Your task to perform on an android device: turn on location history Image 0: 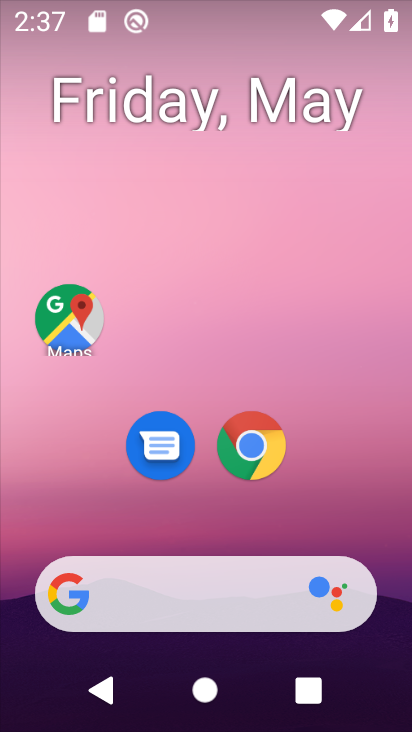
Step 0: drag from (184, 503) to (243, 132)
Your task to perform on an android device: turn on location history Image 1: 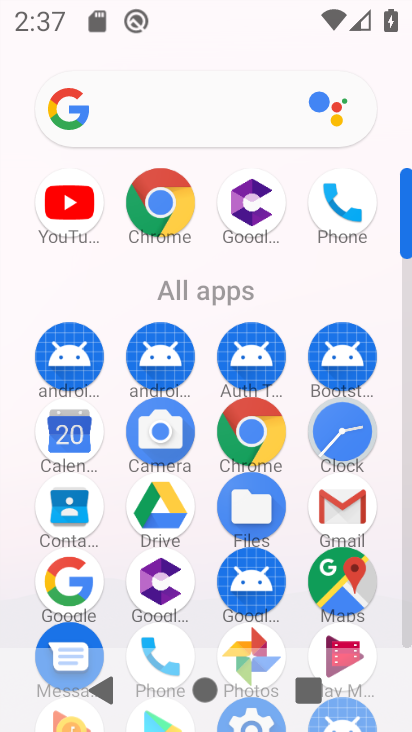
Step 1: drag from (205, 615) to (233, 307)
Your task to perform on an android device: turn on location history Image 2: 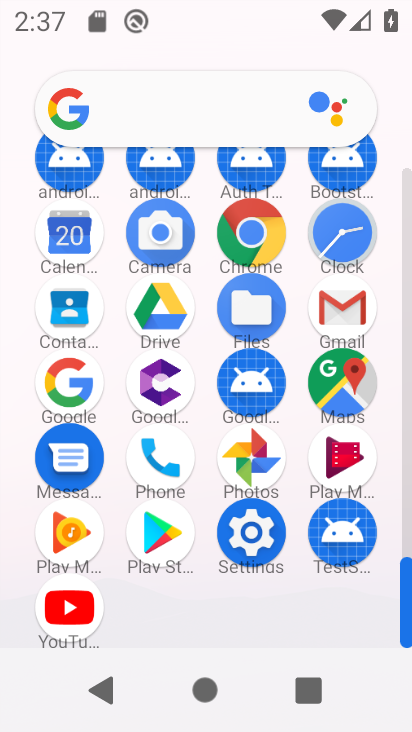
Step 2: click (248, 534)
Your task to perform on an android device: turn on location history Image 3: 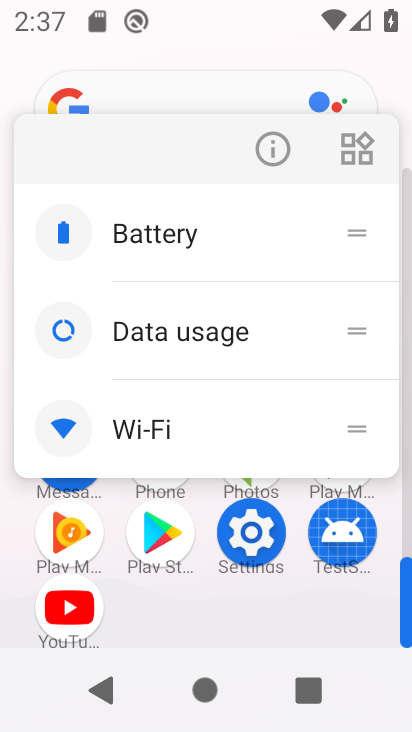
Step 3: click (279, 135)
Your task to perform on an android device: turn on location history Image 4: 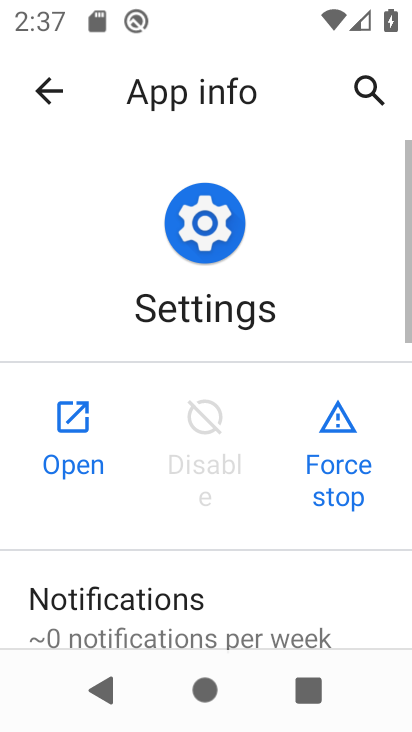
Step 4: click (77, 442)
Your task to perform on an android device: turn on location history Image 5: 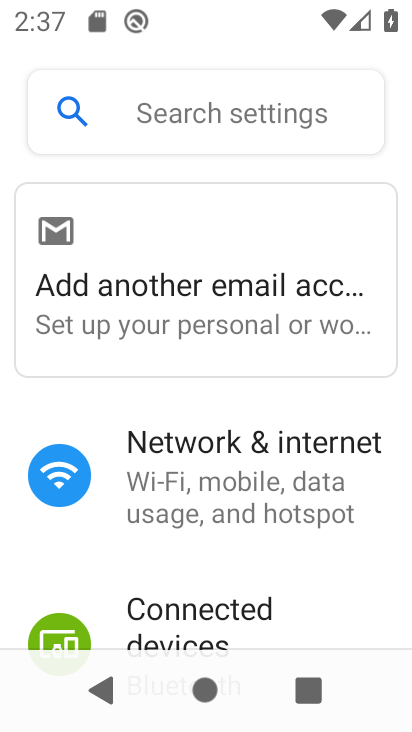
Step 5: drag from (172, 566) to (211, 342)
Your task to perform on an android device: turn on location history Image 6: 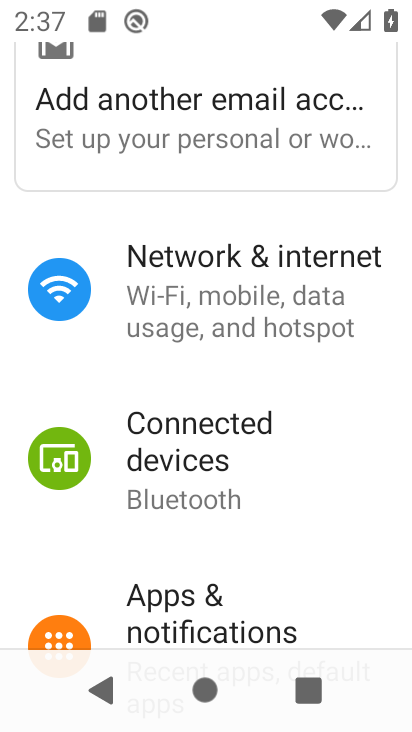
Step 6: drag from (219, 487) to (296, 231)
Your task to perform on an android device: turn on location history Image 7: 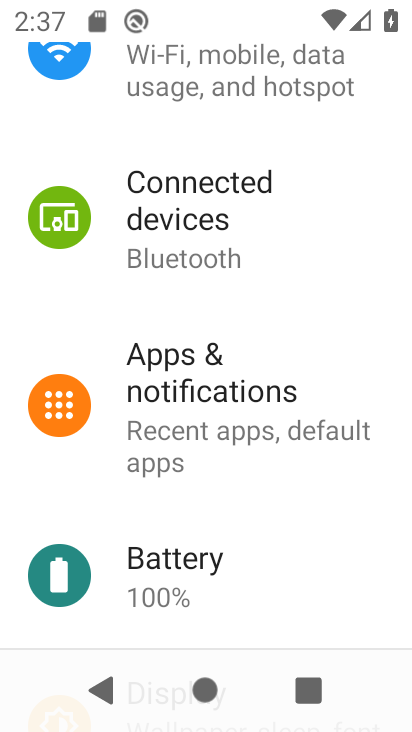
Step 7: drag from (187, 532) to (359, 154)
Your task to perform on an android device: turn on location history Image 8: 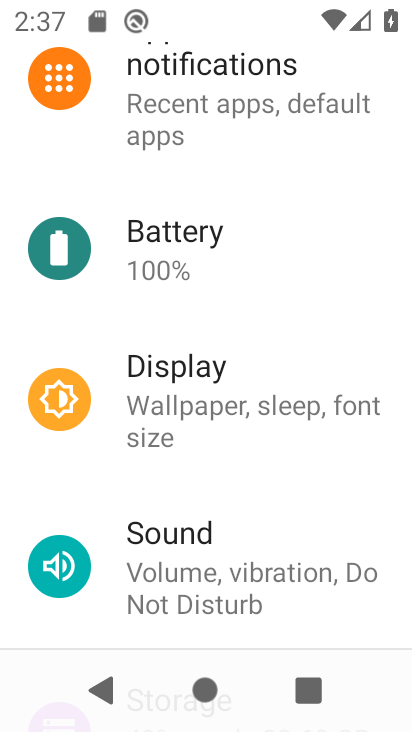
Step 8: drag from (211, 429) to (225, 221)
Your task to perform on an android device: turn on location history Image 9: 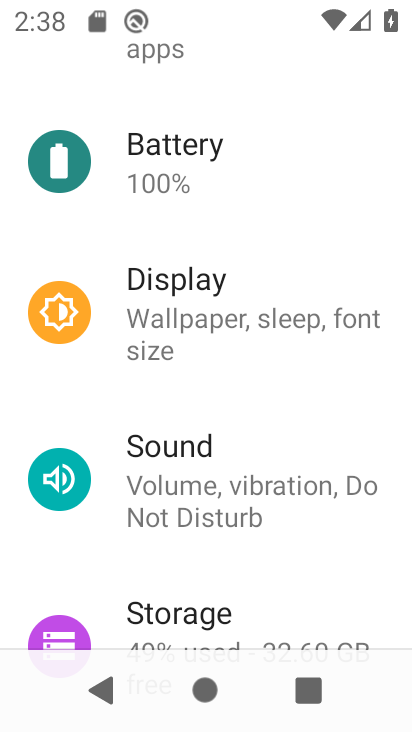
Step 9: drag from (205, 529) to (263, 160)
Your task to perform on an android device: turn on location history Image 10: 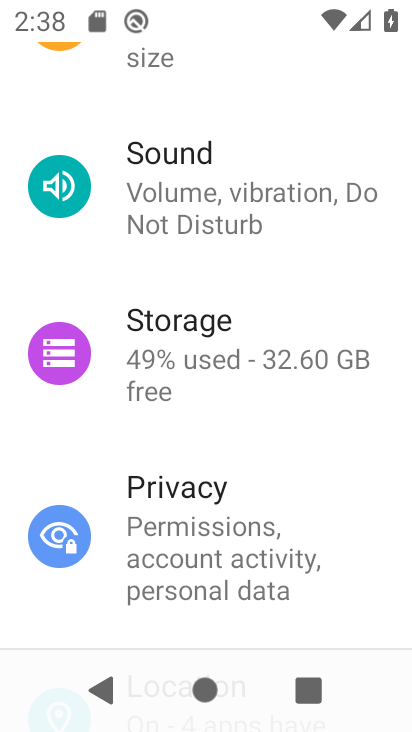
Step 10: drag from (187, 583) to (256, 228)
Your task to perform on an android device: turn on location history Image 11: 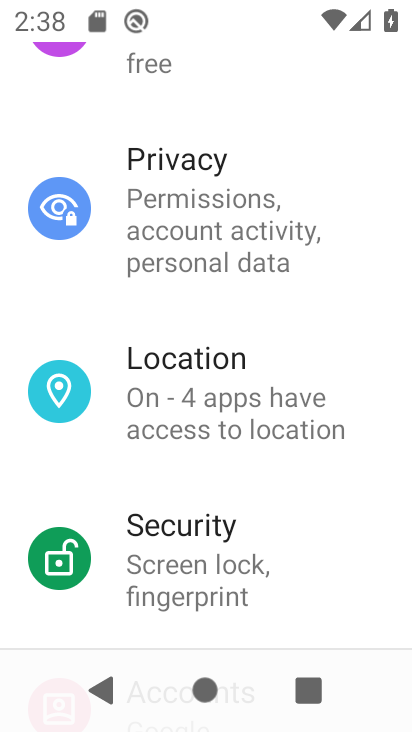
Step 11: click (174, 385)
Your task to perform on an android device: turn on location history Image 12: 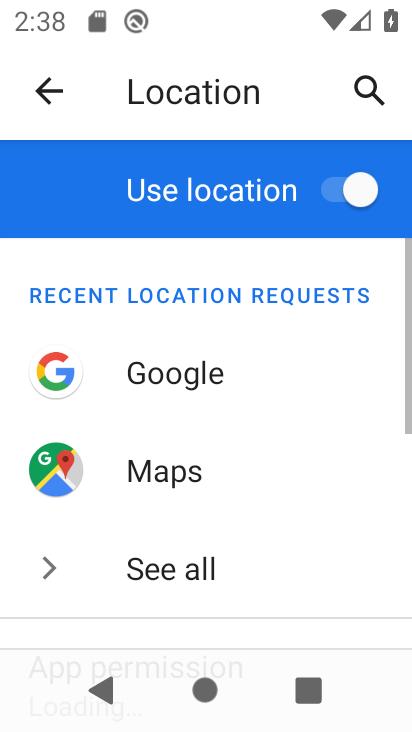
Step 12: click (244, 173)
Your task to perform on an android device: turn on location history Image 13: 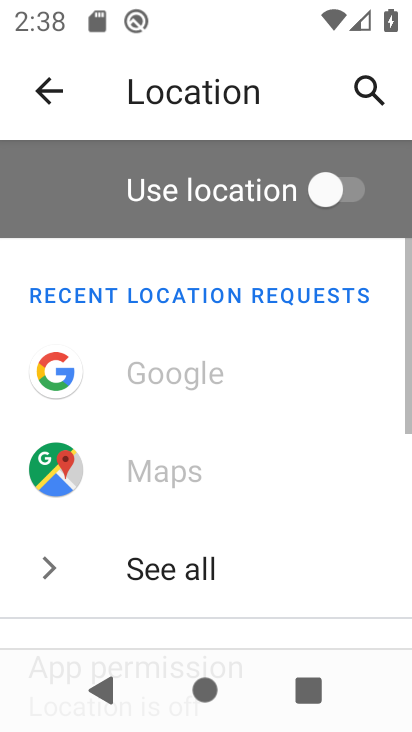
Step 13: drag from (197, 583) to (248, 215)
Your task to perform on an android device: turn on location history Image 14: 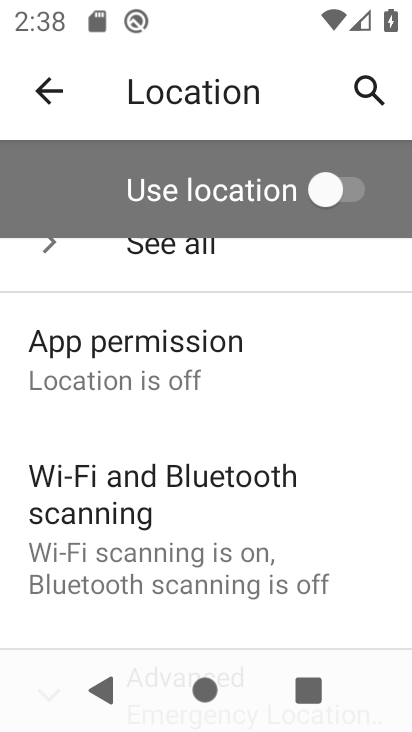
Step 14: drag from (218, 595) to (267, 182)
Your task to perform on an android device: turn on location history Image 15: 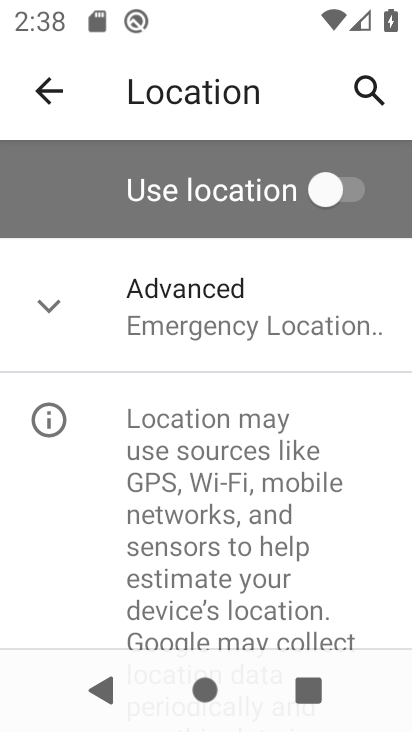
Step 15: click (168, 314)
Your task to perform on an android device: turn on location history Image 16: 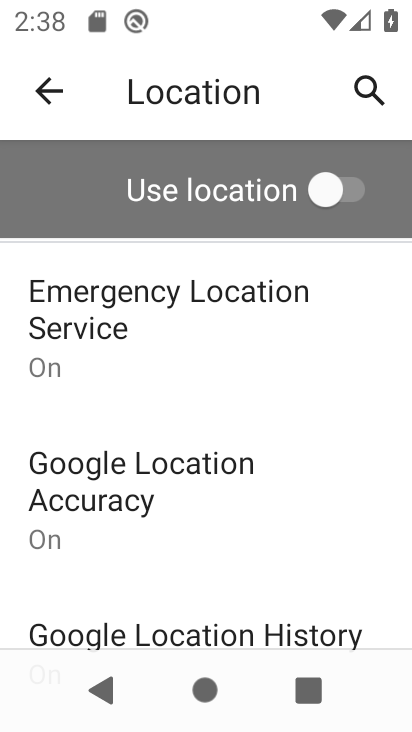
Step 16: drag from (209, 523) to (226, 267)
Your task to perform on an android device: turn on location history Image 17: 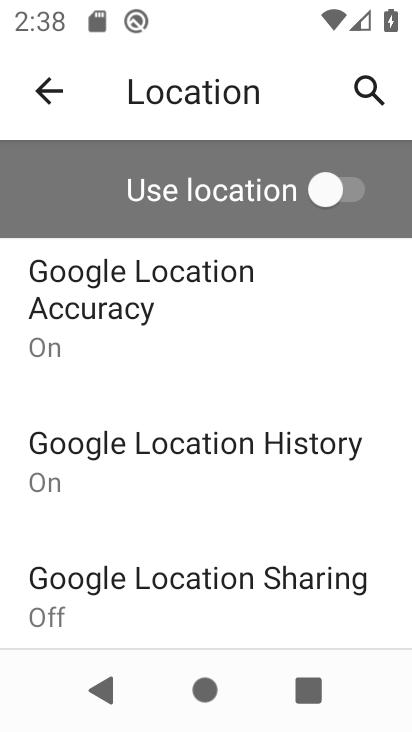
Step 17: click (202, 462)
Your task to perform on an android device: turn on location history Image 18: 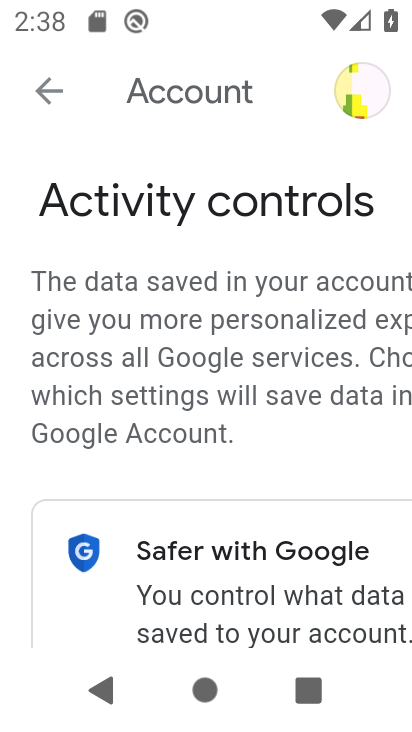
Step 18: drag from (196, 544) to (247, 115)
Your task to perform on an android device: turn on location history Image 19: 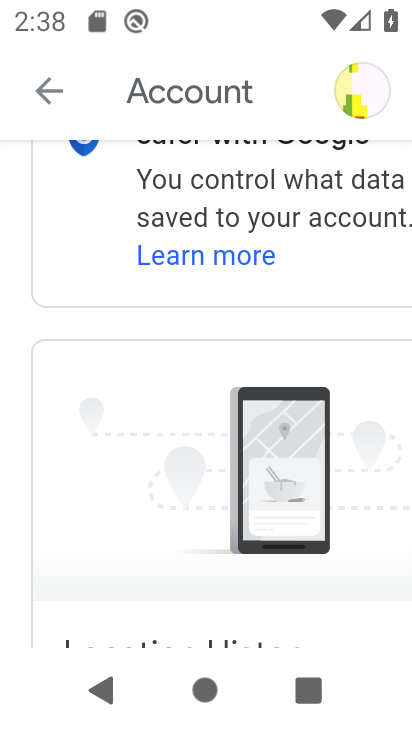
Step 19: drag from (293, 508) to (297, 212)
Your task to perform on an android device: turn on location history Image 20: 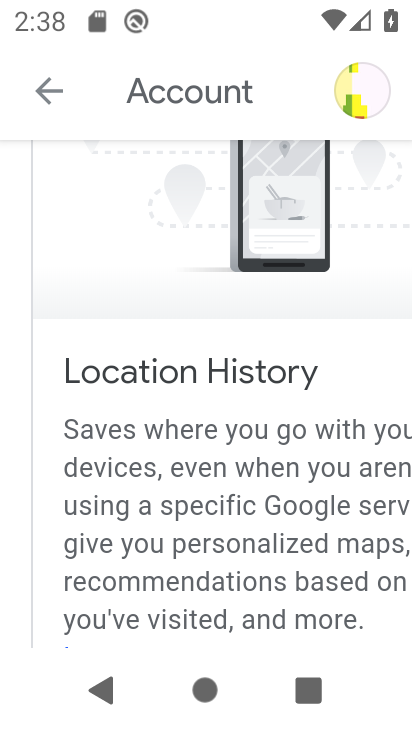
Step 20: drag from (217, 506) to (217, 146)
Your task to perform on an android device: turn on location history Image 21: 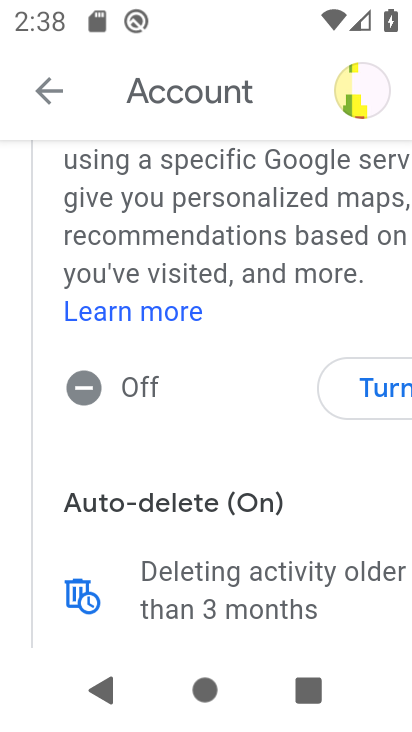
Step 21: drag from (230, 583) to (267, 336)
Your task to perform on an android device: turn on location history Image 22: 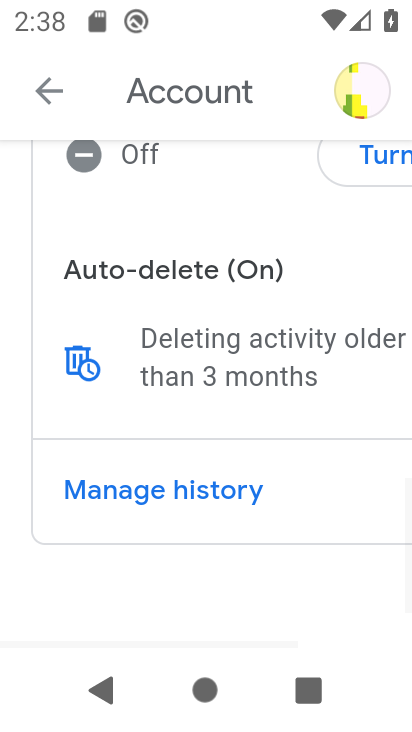
Step 22: drag from (252, 218) to (289, 638)
Your task to perform on an android device: turn on location history Image 23: 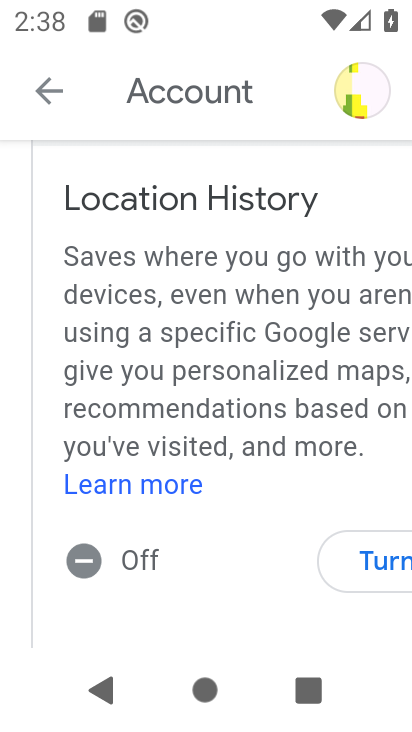
Step 23: click (326, 702)
Your task to perform on an android device: turn on location history Image 24: 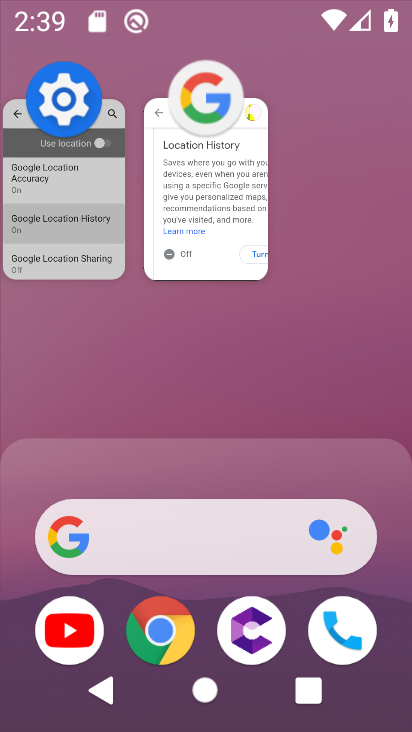
Step 24: click (230, 362)
Your task to perform on an android device: turn on location history Image 25: 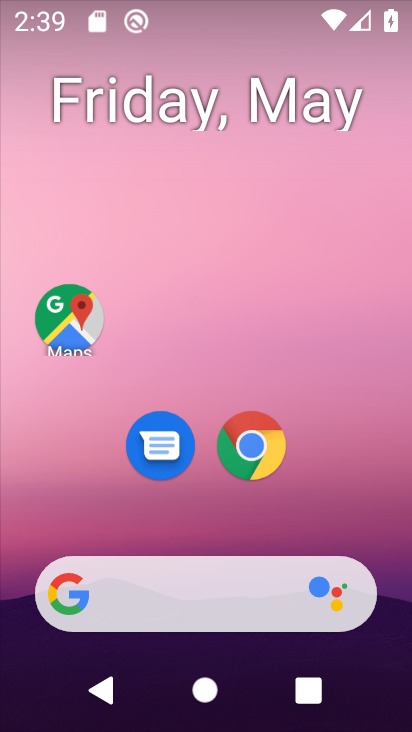
Step 25: drag from (229, 522) to (230, 164)
Your task to perform on an android device: turn on location history Image 26: 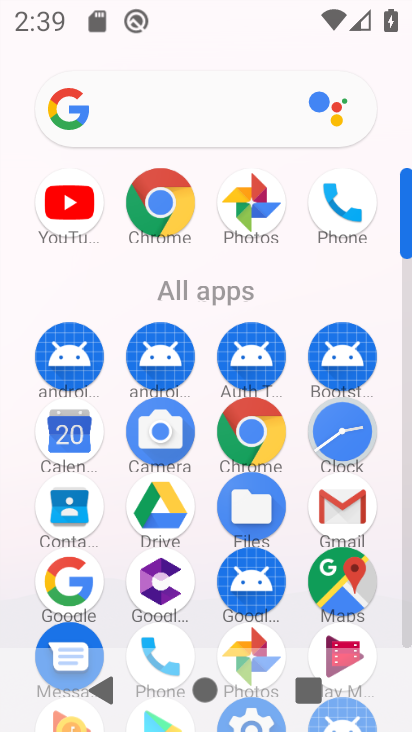
Step 26: drag from (194, 617) to (226, 299)
Your task to perform on an android device: turn on location history Image 27: 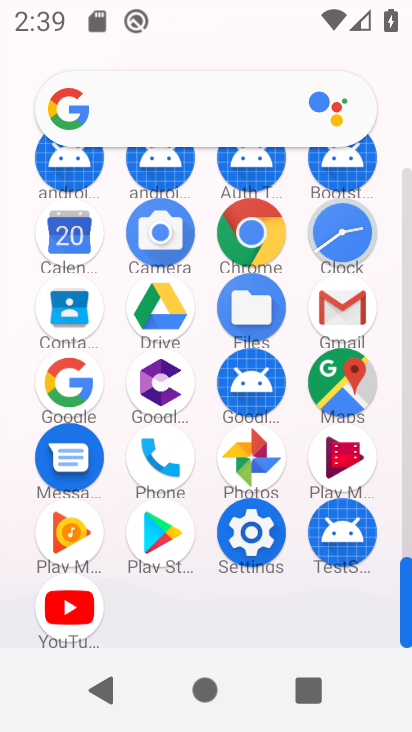
Step 27: drag from (207, 472) to (213, 343)
Your task to perform on an android device: turn on location history Image 28: 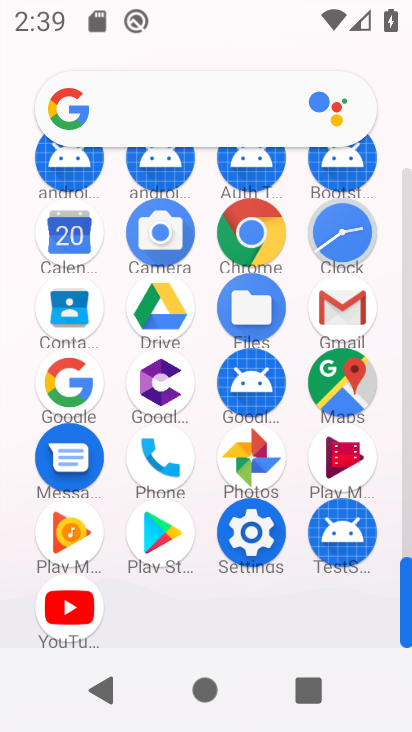
Step 28: click (239, 556)
Your task to perform on an android device: turn on location history Image 29: 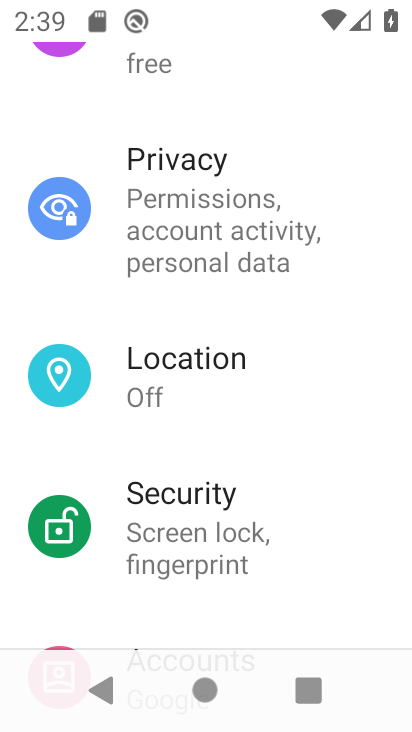
Step 29: click (221, 357)
Your task to perform on an android device: turn on location history Image 30: 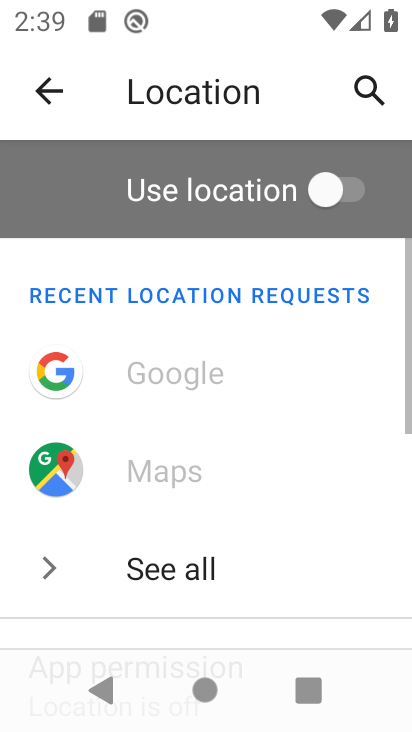
Step 30: drag from (248, 553) to (285, 233)
Your task to perform on an android device: turn on location history Image 31: 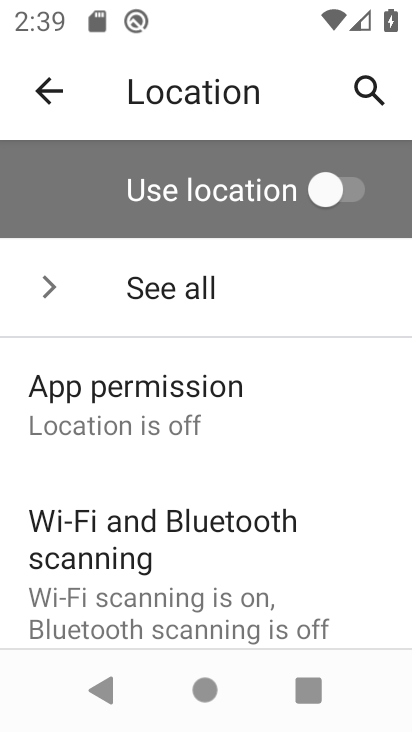
Step 31: drag from (241, 575) to (234, 367)
Your task to perform on an android device: turn on location history Image 32: 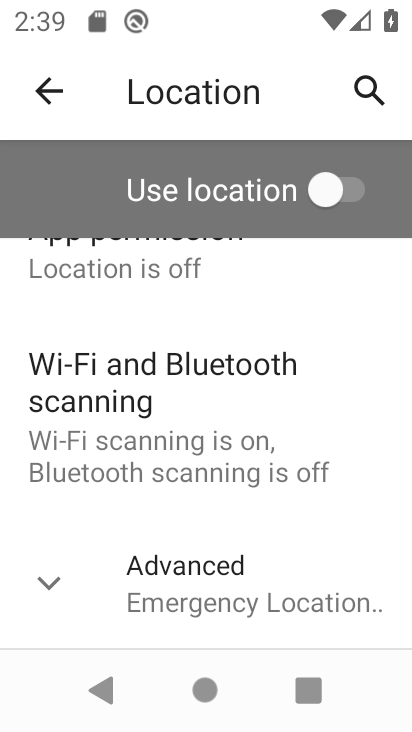
Step 32: click (181, 601)
Your task to perform on an android device: turn on location history Image 33: 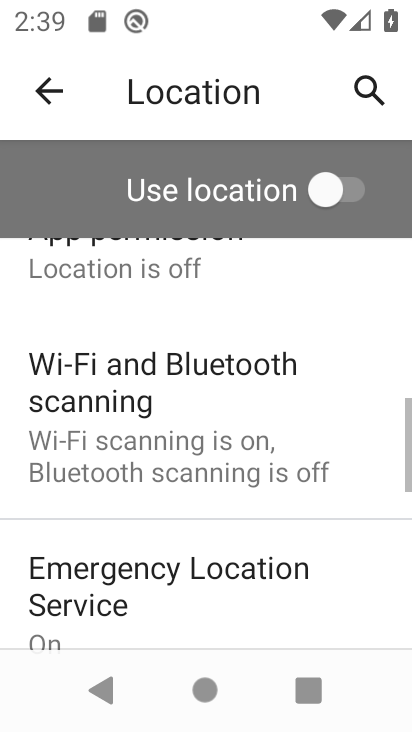
Step 33: drag from (185, 593) to (238, 299)
Your task to perform on an android device: turn on location history Image 34: 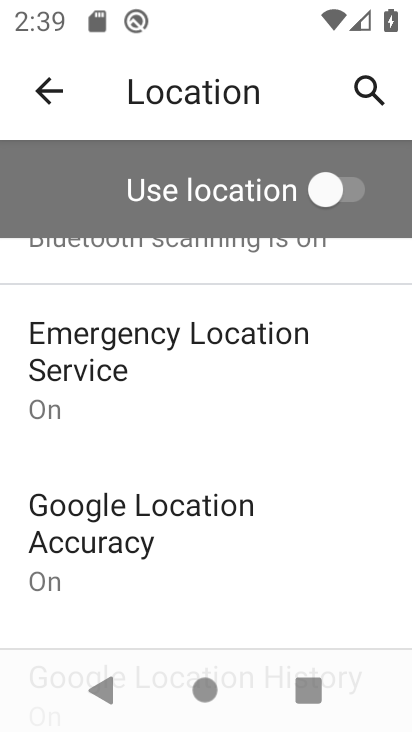
Step 34: drag from (185, 550) to (214, 298)
Your task to perform on an android device: turn on location history Image 35: 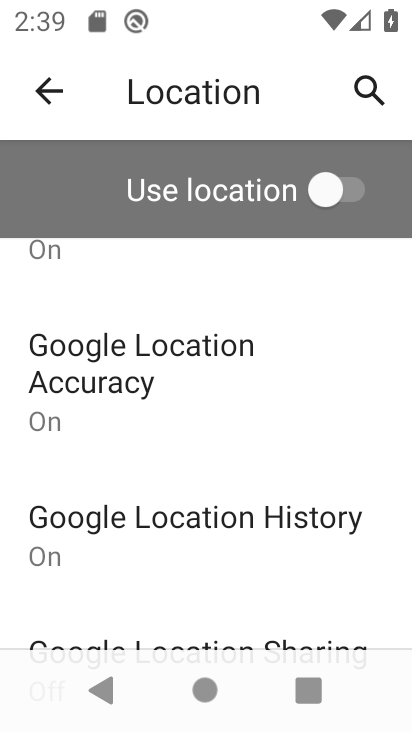
Step 35: drag from (199, 570) to (216, 394)
Your task to perform on an android device: turn on location history Image 36: 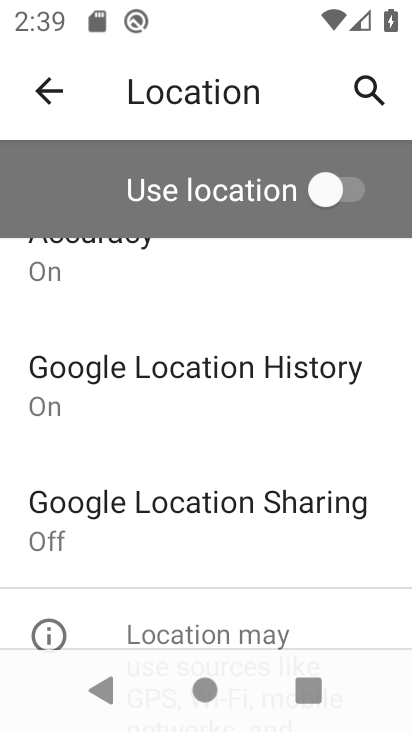
Step 36: click (213, 381)
Your task to perform on an android device: turn on location history Image 37: 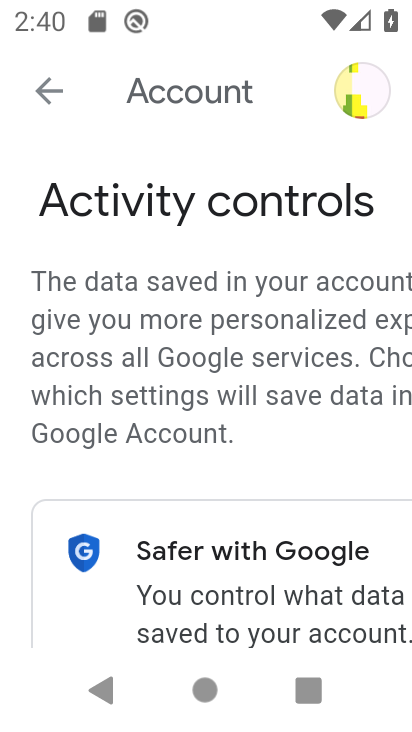
Step 37: drag from (279, 596) to (306, 323)
Your task to perform on an android device: turn on location history Image 38: 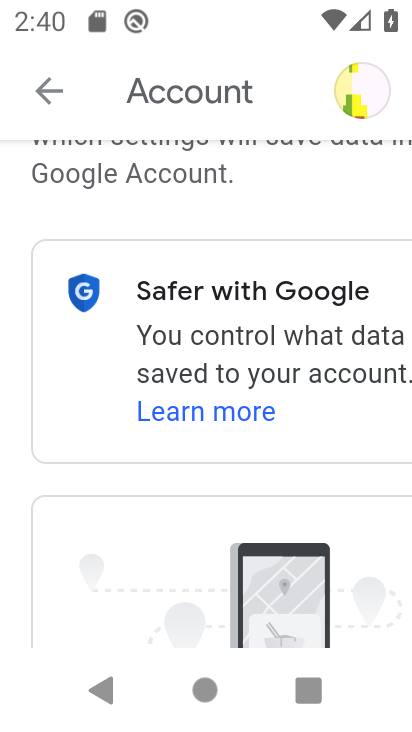
Step 38: drag from (196, 581) to (233, 371)
Your task to perform on an android device: turn on location history Image 39: 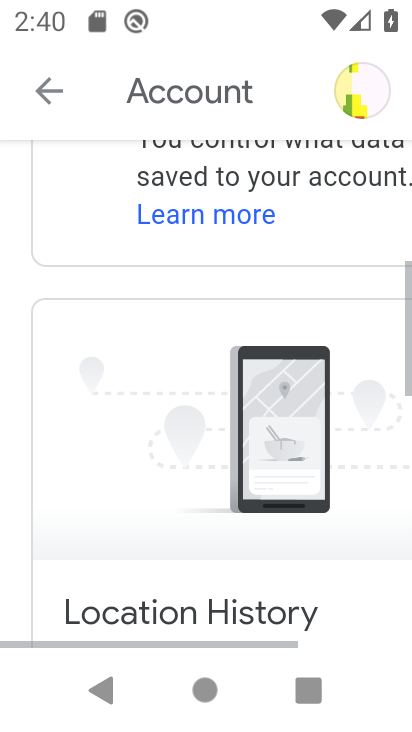
Step 39: drag from (278, 482) to (301, 197)
Your task to perform on an android device: turn on location history Image 40: 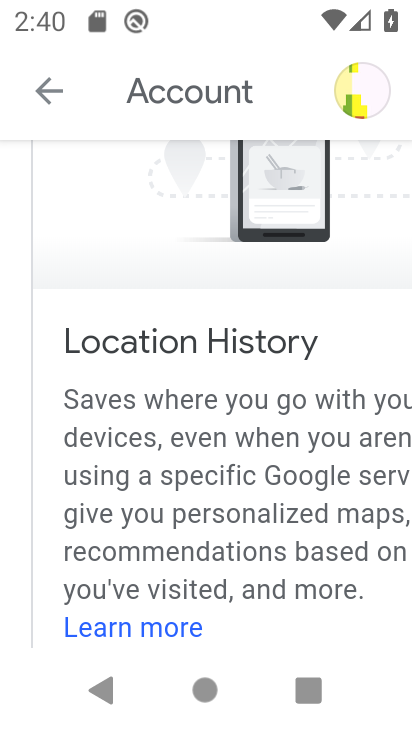
Step 40: drag from (305, 423) to (311, 219)
Your task to perform on an android device: turn on location history Image 41: 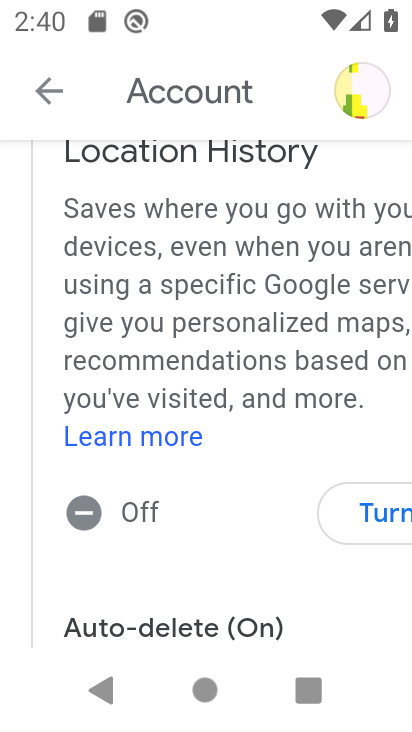
Step 41: click (377, 512)
Your task to perform on an android device: turn on location history Image 42: 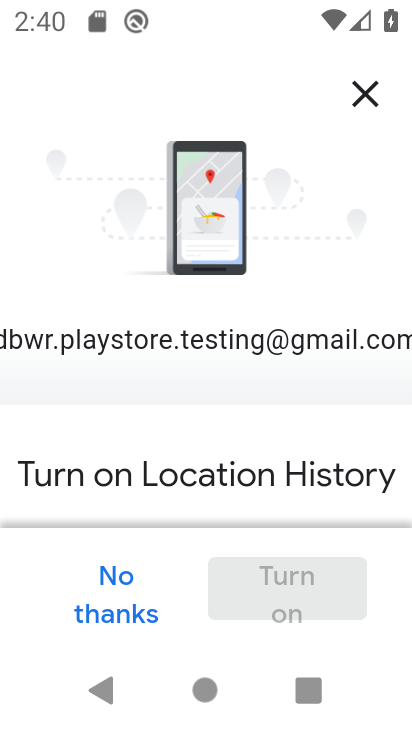
Step 42: drag from (217, 447) to (289, 13)
Your task to perform on an android device: turn on location history Image 43: 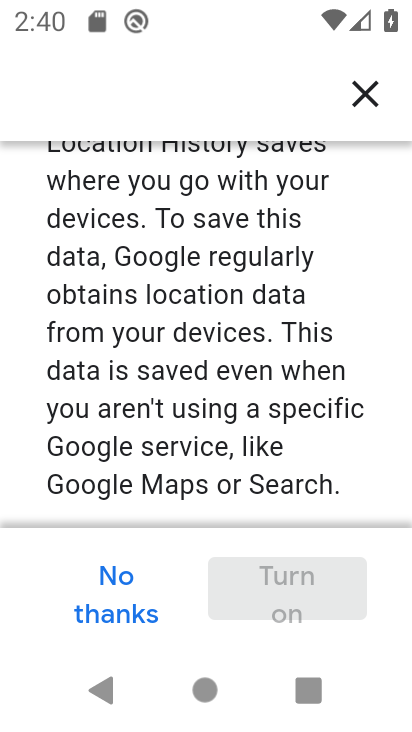
Step 43: drag from (199, 383) to (279, 78)
Your task to perform on an android device: turn on location history Image 44: 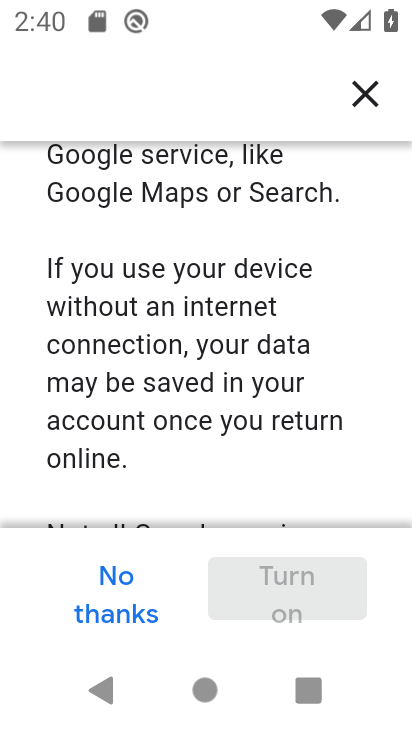
Step 44: drag from (183, 476) to (226, 77)
Your task to perform on an android device: turn on location history Image 45: 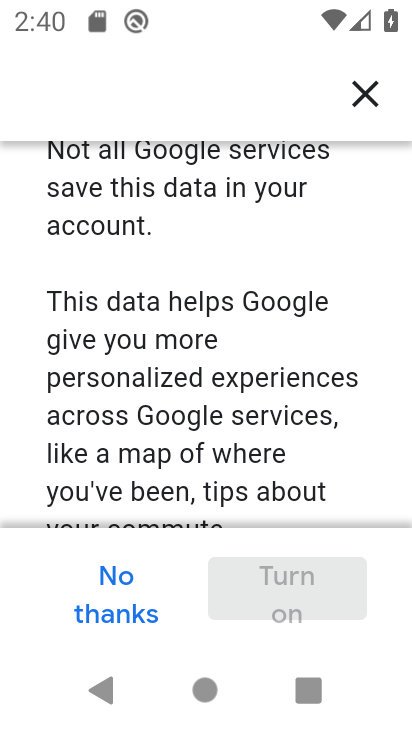
Step 45: click (136, 566)
Your task to perform on an android device: turn on location history Image 46: 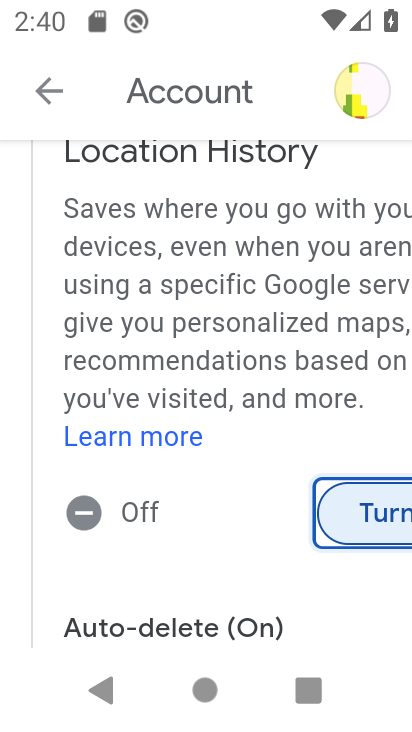
Step 46: click (350, 536)
Your task to perform on an android device: turn on location history Image 47: 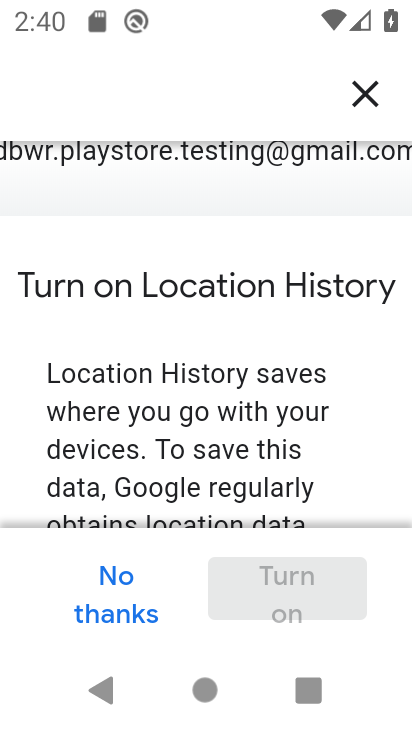
Step 47: drag from (211, 438) to (261, 117)
Your task to perform on an android device: turn on location history Image 48: 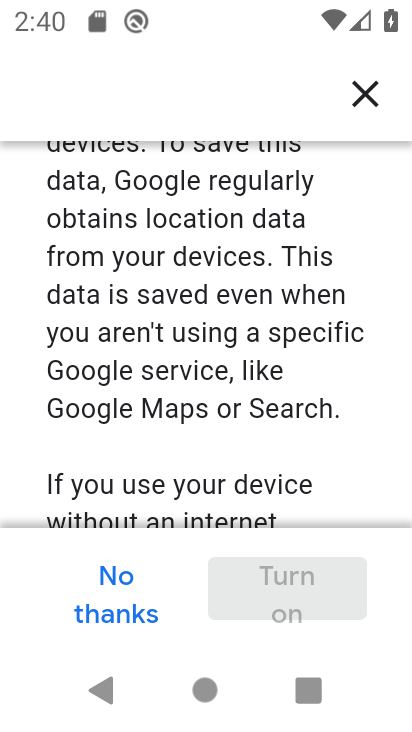
Step 48: drag from (198, 424) to (248, 107)
Your task to perform on an android device: turn on location history Image 49: 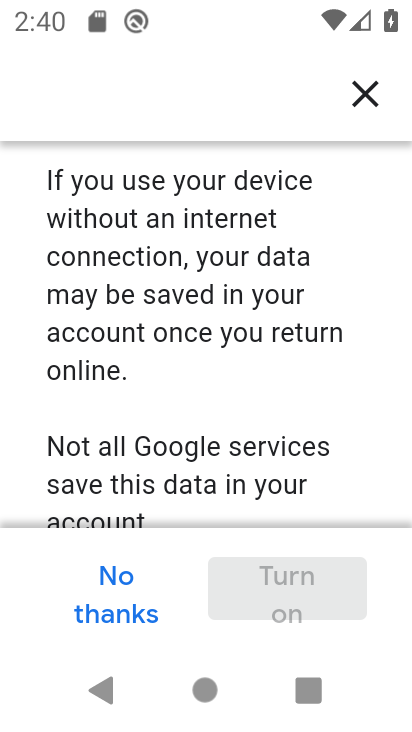
Step 49: drag from (203, 490) to (254, 210)
Your task to perform on an android device: turn on location history Image 50: 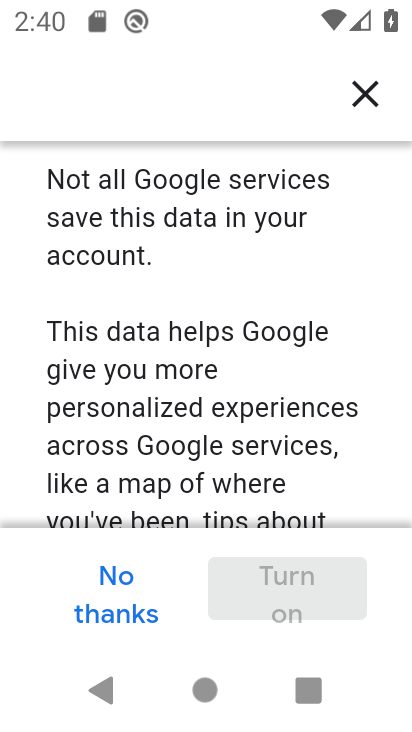
Step 50: drag from (231, 439) to (291, 38)
Your task to perform on an android device: turn on location history Image 51: 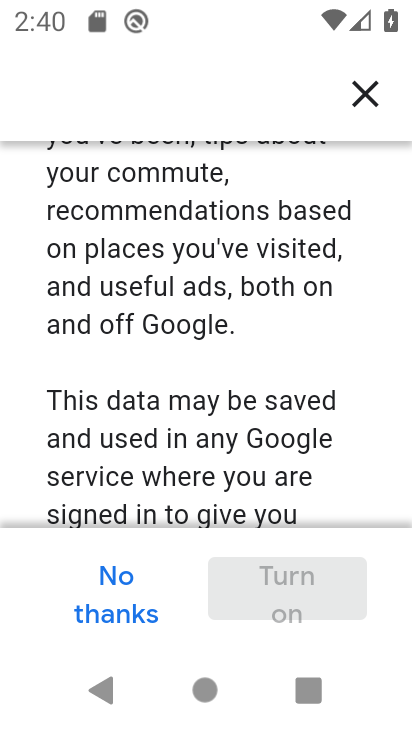
Step 51: drag from (214, 411) to (295, 132)
Your task to perform on an android device: turn on location history Image 52: 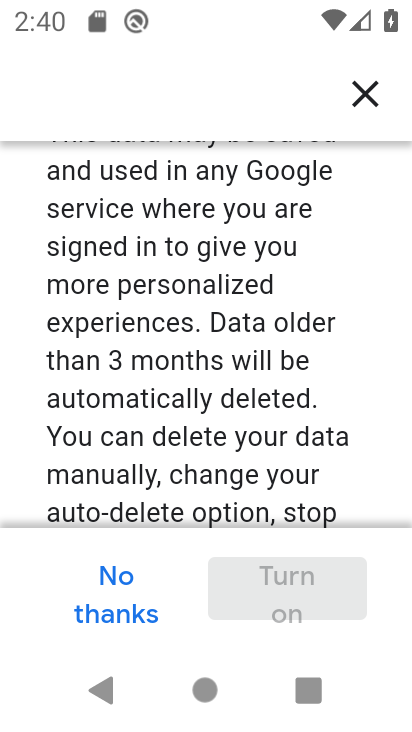
Step 52: drag from (234, 517) to (351, 134)
Your task to perform on an android device: turn on location history Image 53: 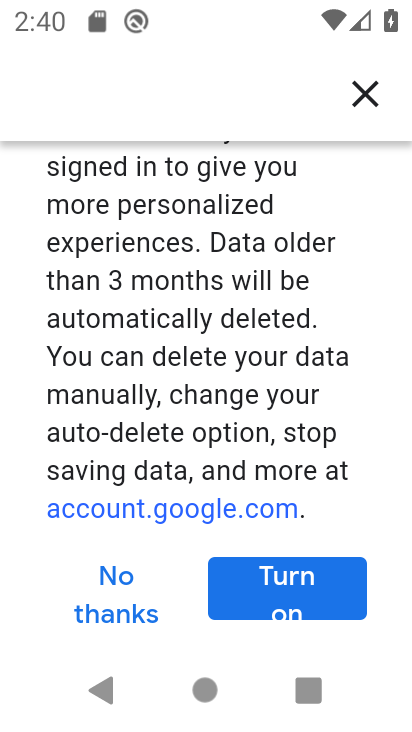
Step 53: click (246, 588)
Your task to perform on an android device: turn on location history Image 54: 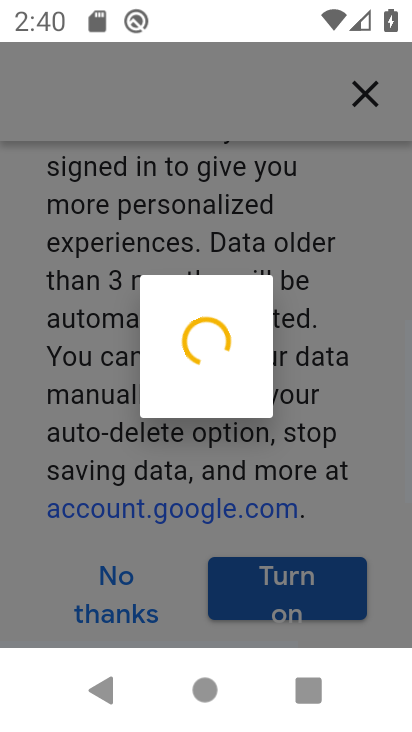
Step 54: click (307, 602)
Your task to perform on an android device: turn on location history Image 55: 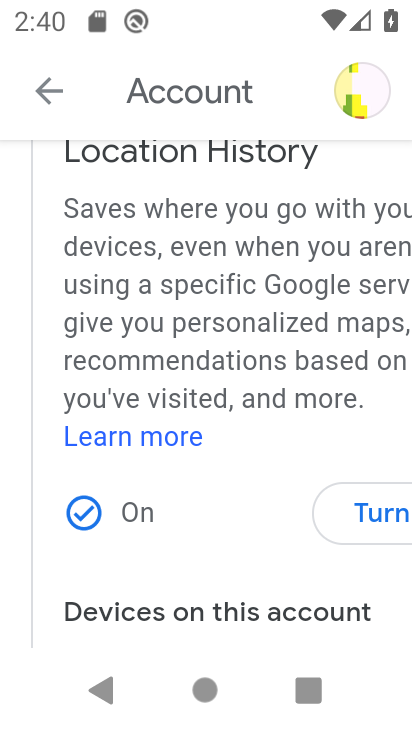
Step 55: task complete